Your task to perform on an android device: turn on notifications settings in the gmail app Image 0: 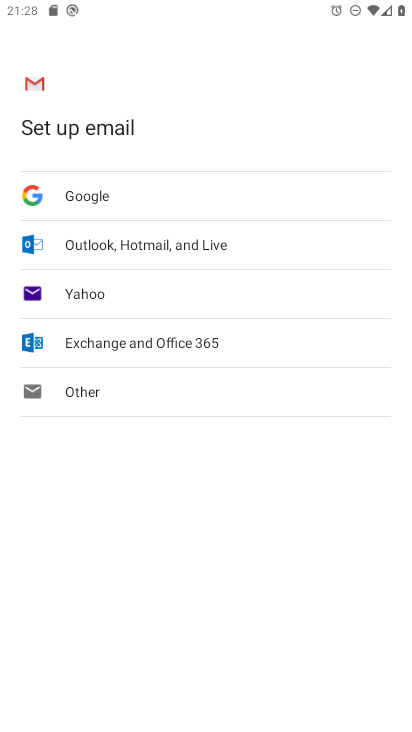
Step 0: press home button
Your task to perform on an android device: turn on notifications settings in the gmail app Image 1: 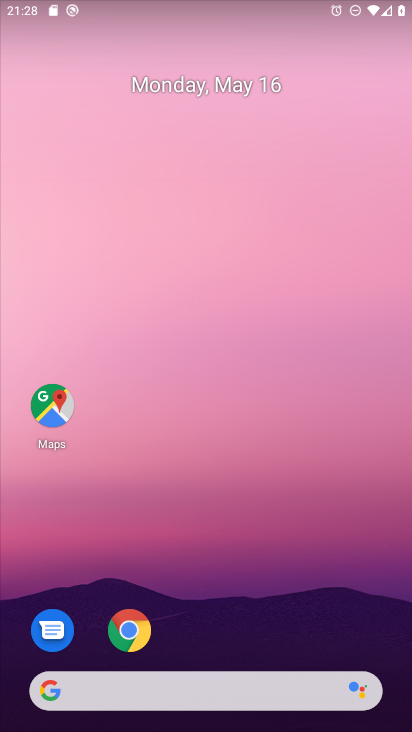
Step 1: drag from (275, 629) to (209, 16)
Your task to perform on an android device: turn on notifications settings in the gmail app Image 2: 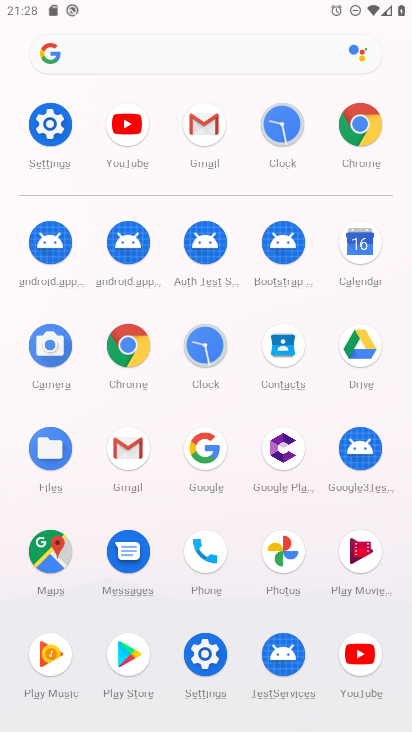
Step 2: click (209, 138)
Your task to perform on an android device: turn on notifications settings in the gmail app Image 3: 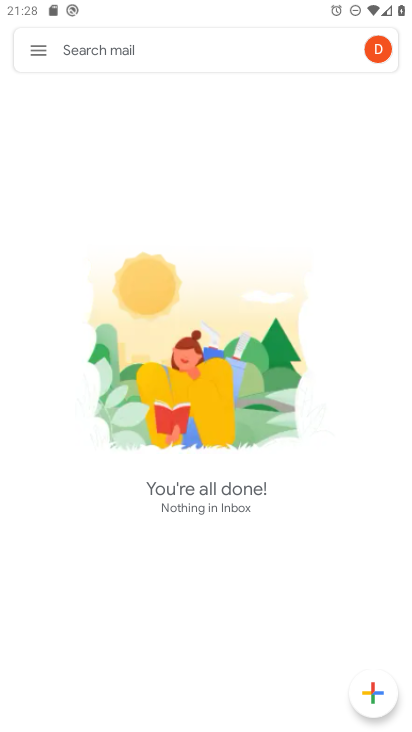
Step 3: click (48, 45)
Your task to perform on an android device: turn on notifications settings in the gmail app Image 4: 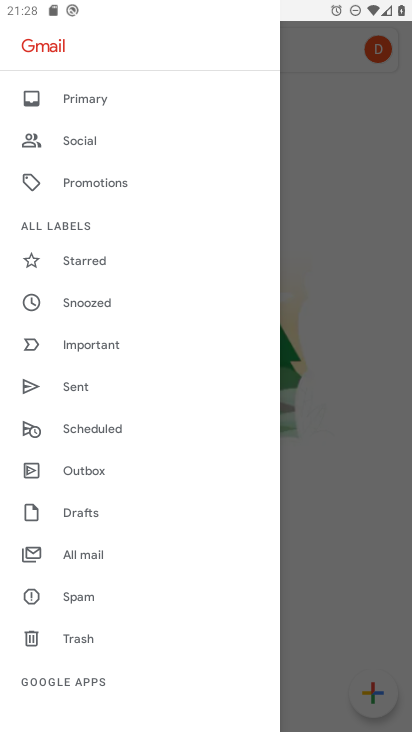
Step 4: drag from (118, 619) to (177, 215)
Your task to perform on an android device: turn on notifications settings in the gmail app Image 5: 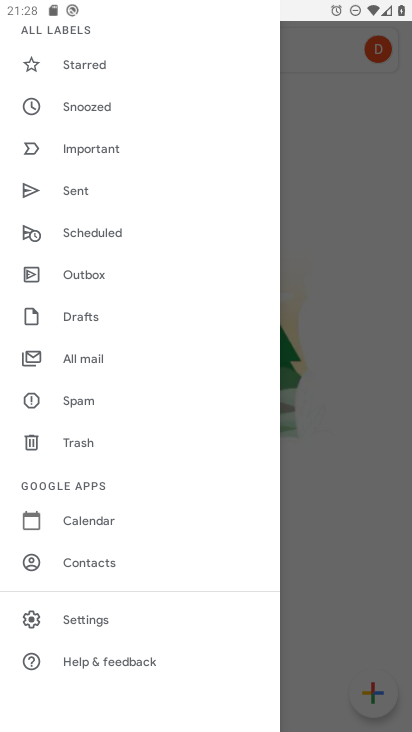
Step 5: click (75, 616)
Your task to perform on an android device: turn on notifications settings in the gmail app Image 6: 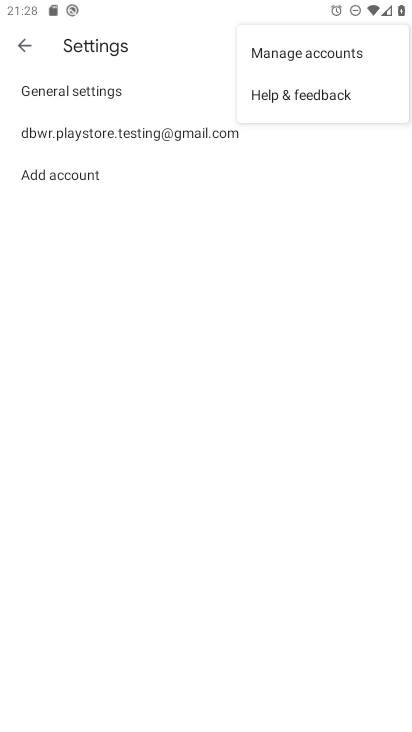
Step 6: press back button
Your task to perform on an android device: turn on notifications settings in the gmail app Image 7: 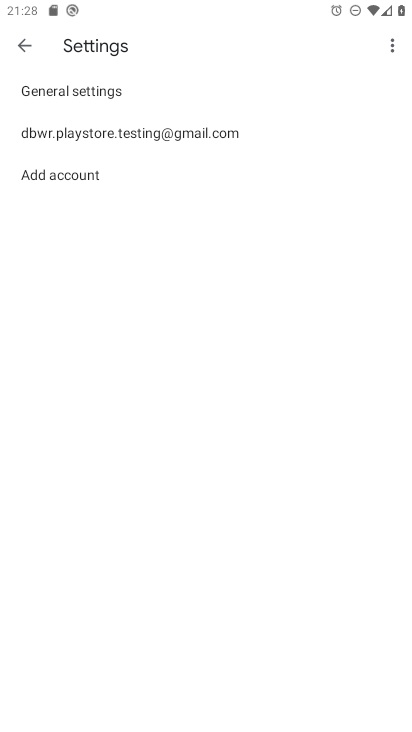
Step 7: press back button
Your task to perform on an android device: turn on notifications settings in the gmail app Image 8: 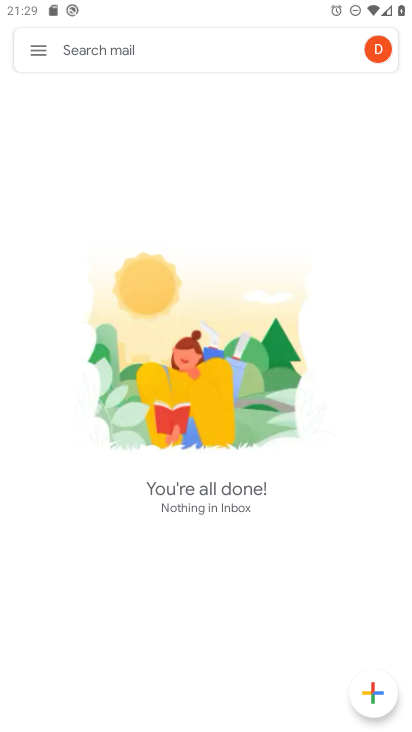
Step 8: click (29, 42)
Your task to perform on an android device: turn on notifications settings in the gmail app Image 9: 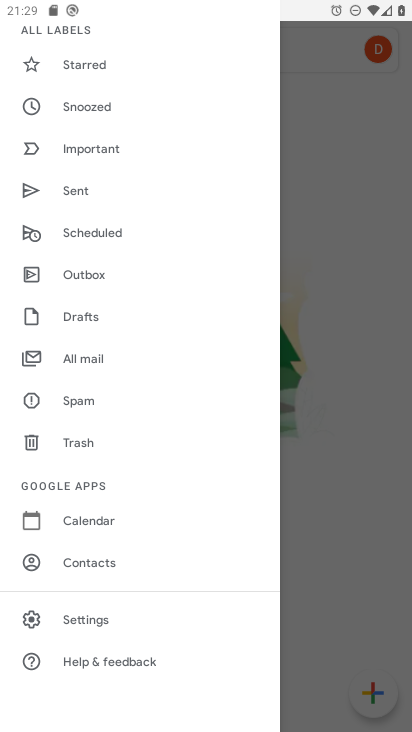
Step 9: drag from (172, 69) to (170, 636)
Your task to perform on an android device: turn on notifications settings in the gmail app Image 10: 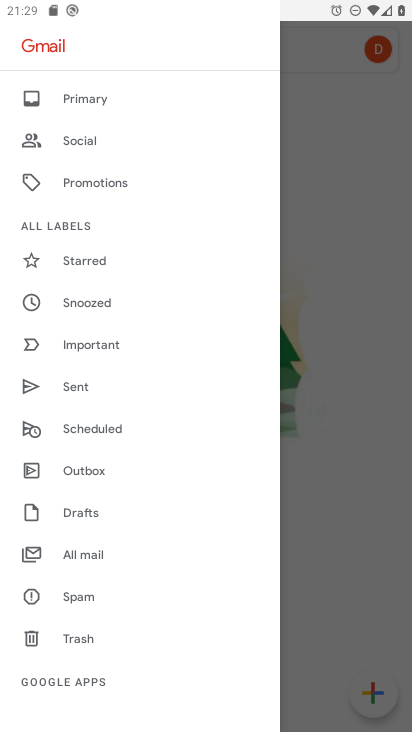
Step 10: drag from (155, 612) to (170, 26)
Your task to perform on an android device: turn on notifications settings in the gmail app Image 11: 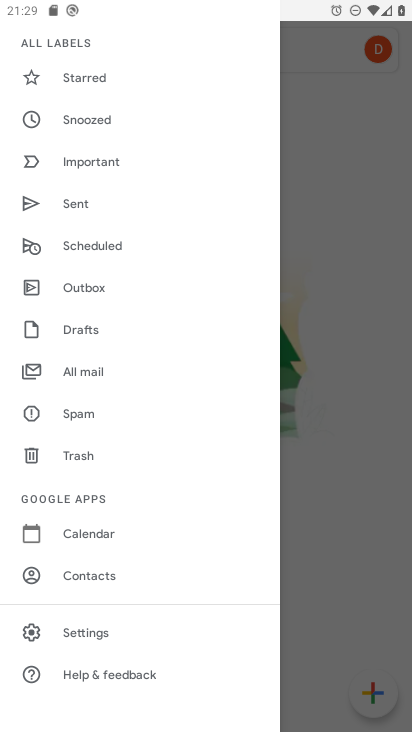
Step 11: click (99, 636)
Your task to perform on an android device: turn on notifications settings in the gmail app Image 12: 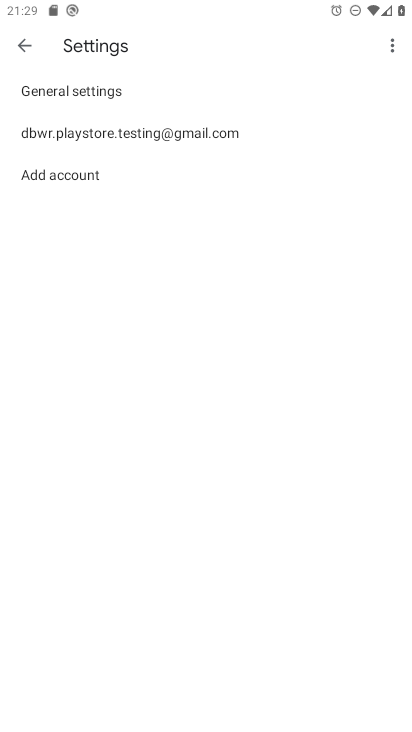
Step 12: click (397, 48)
Your task to perform on an android device: turn on notifications settings in the gmail app Image 13: 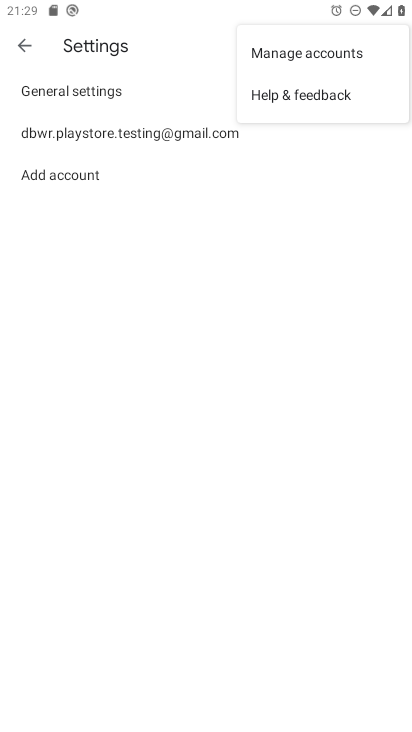
Step 13: task complete